Your task to perform on an android device: add a label to a message in the gmail app Image 0: 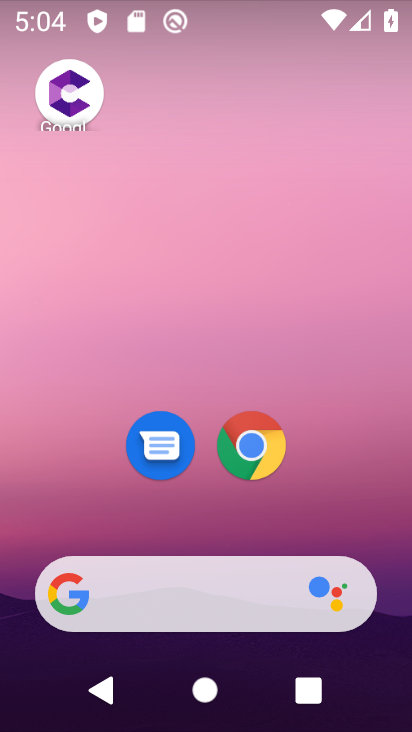
Step 0: drag from (378, 693) to (234, 113)
Your task to perform on an android device: add a label to a message in the gmail app Image 1: 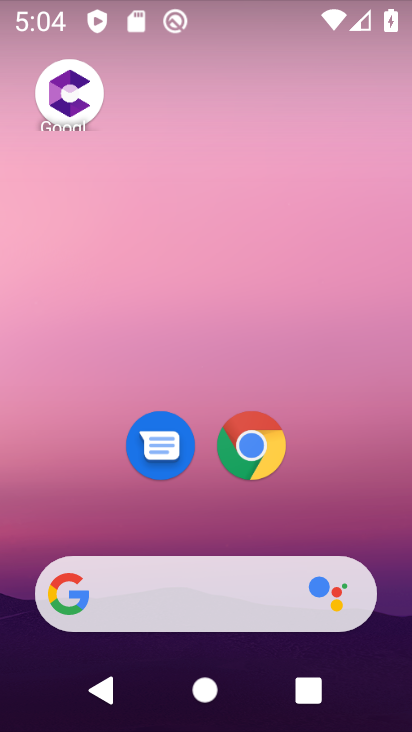
Step 1: click (304, 179)
Your task to perform on an android device: add a label to a message in the gmail app Image 2: 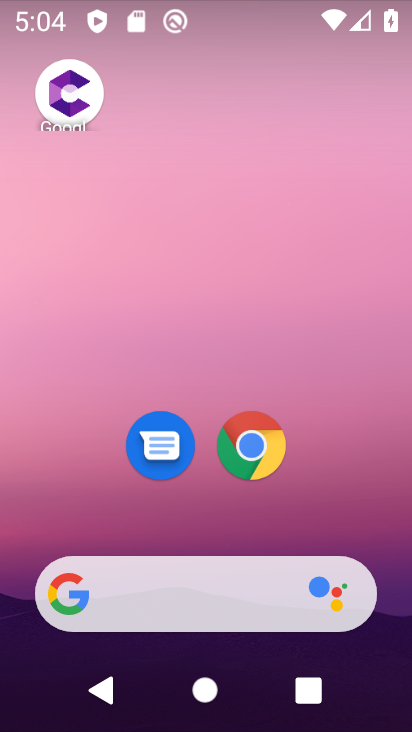
Step 2: drag from (313, 646) to (162, 4)
Your task to perform on an android device: add a label to a message in the gmail app Image 3: 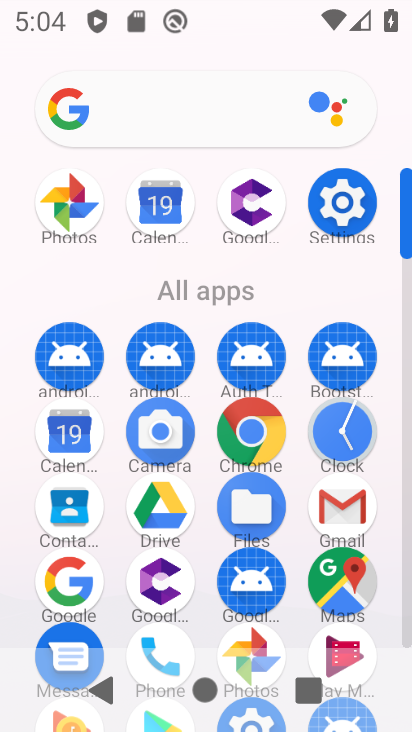
Step 3: click (321, 495)
Your task to perform on an android device: add a label to a message in the gmail app Image 4: 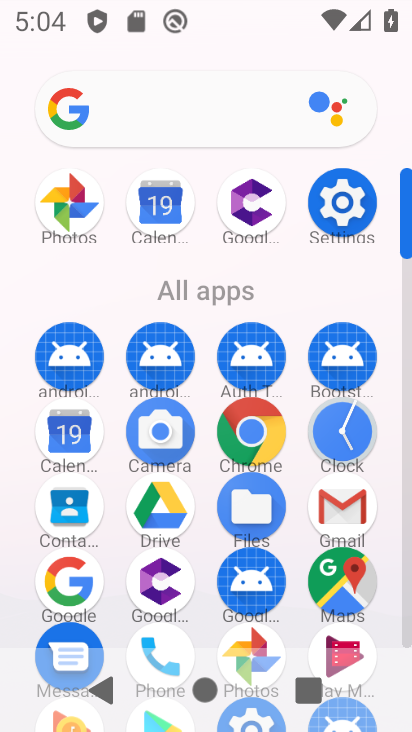
Step 4: click (321, 495)
Your task to perform on an android device: add a label to a message in the gmail app Image 5: 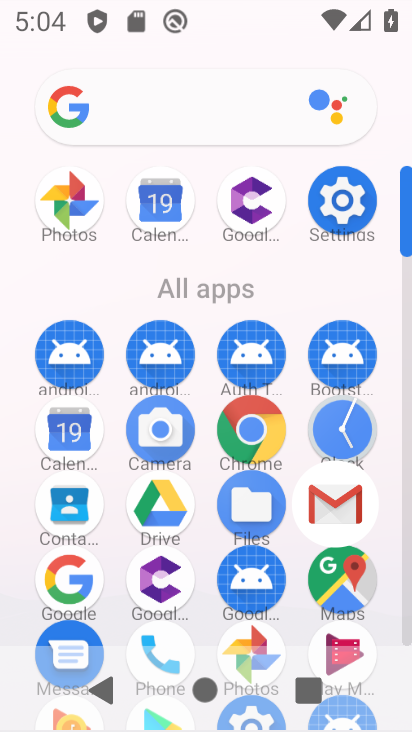
Step 5: click (321, 495)
Your task to perform on an android device: add a label to a message in the gmail app Image 6: 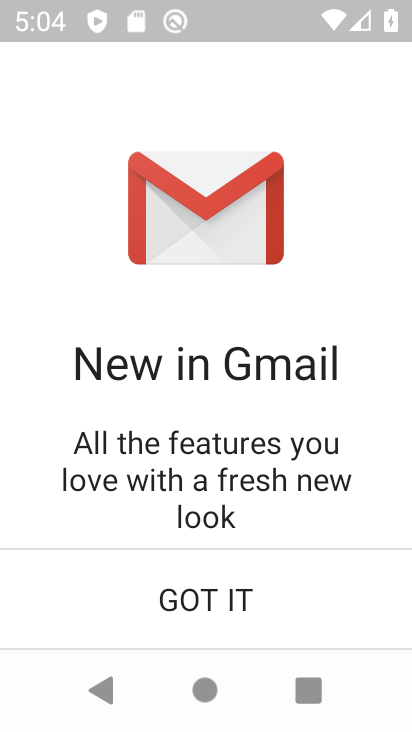
Step 6: click (179, 599)
Your task to perform on an android device: add a label to a message in the gmail app Image 7: 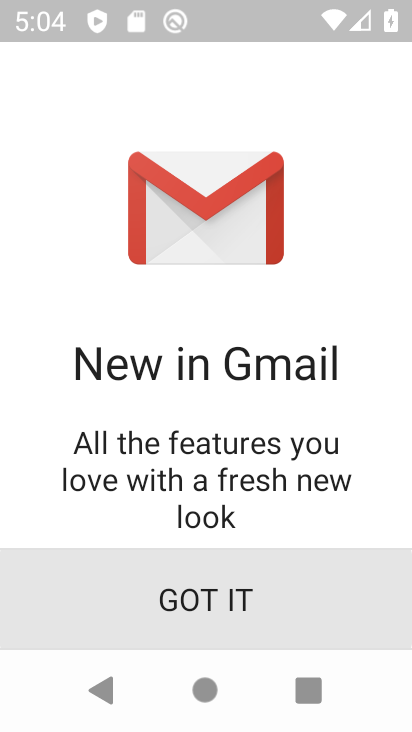
Step 7: click (195, 588)
Your task to perform on an android device: add a label to a message in the gmail app Image 8: 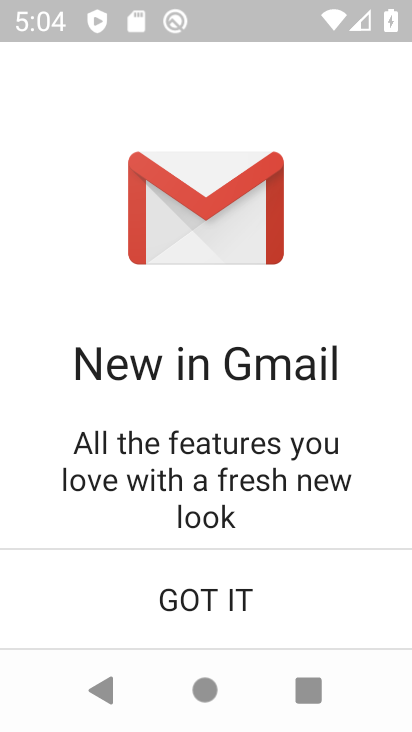
Step 8: click (195, 588)
Your task to perform on an android device: add a label to a message in the gmail app Image 9: 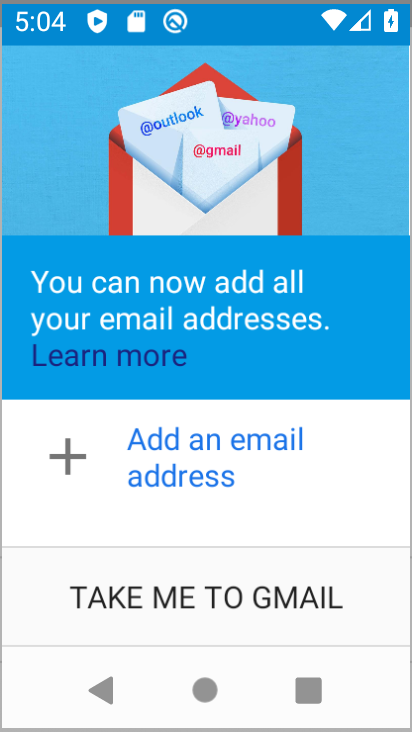
Step 9: click (195, 589)
Your task to perform on an android device: add a label to a message in the gmail app Image 10: 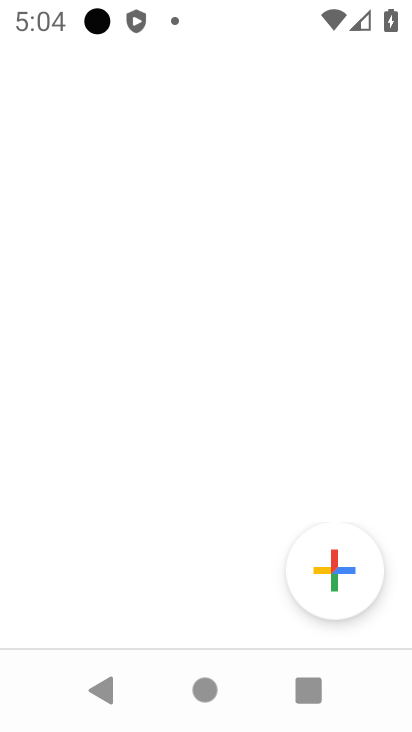
Step 10: click (190, 599)
Your task to perform on an android device: add a label to a message in the gmail app Image 11: 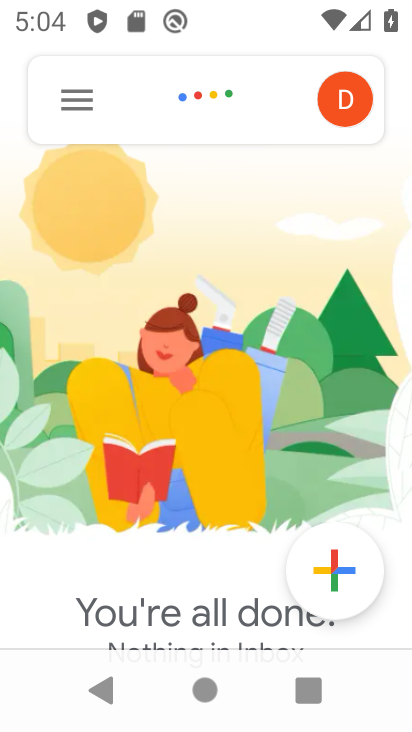
Step 11: click (76, 100)
Your task to perform on an android device: add a label to a message in the gmail app Image 12: 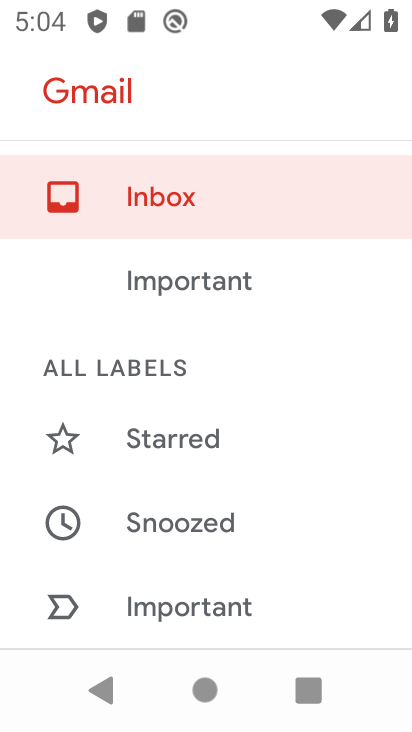
Step 12: drag from (176, 532) to (240, 199)
Your task to perform on an android device: add a label to a message in the gmail app Image 13: 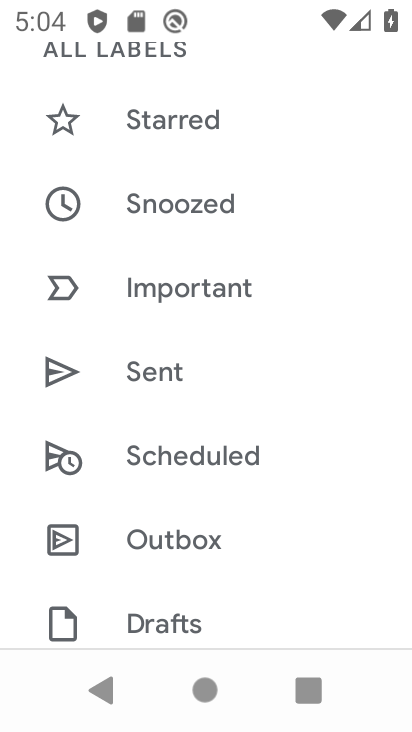
Step 13: drag from (202, 464) to (216, 154)
Your task to perform on an android device: add a label to a message in the gmail app Image 14: 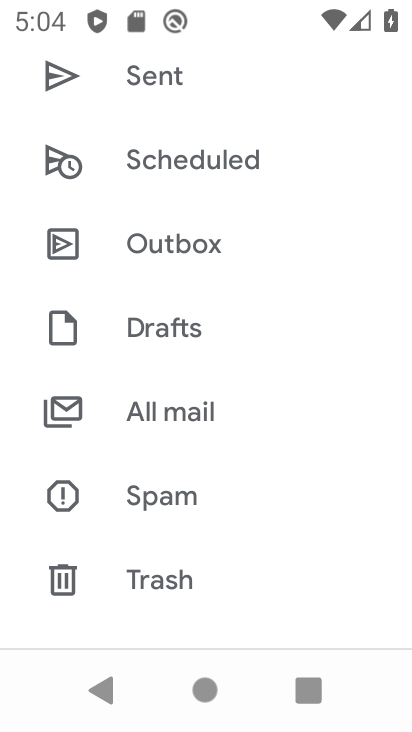
Step 14: click (162, 407)
Your task to perform on an android device: add a label to a message in the gmail app Image 15: 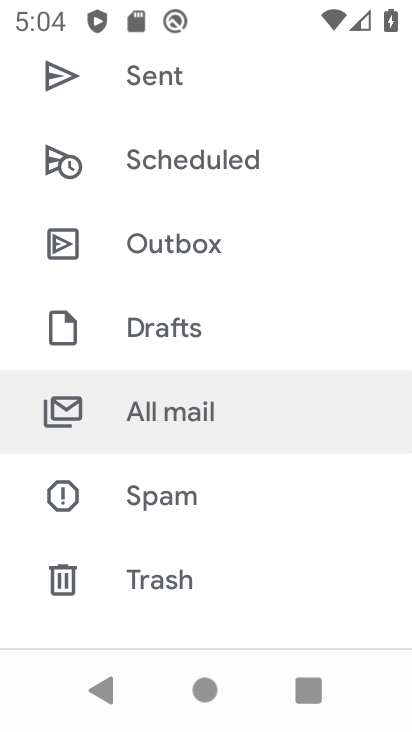
Step 15: click (159, 407)
Your task to perform on an android device: add a label to a message in the gmail app Image 16: 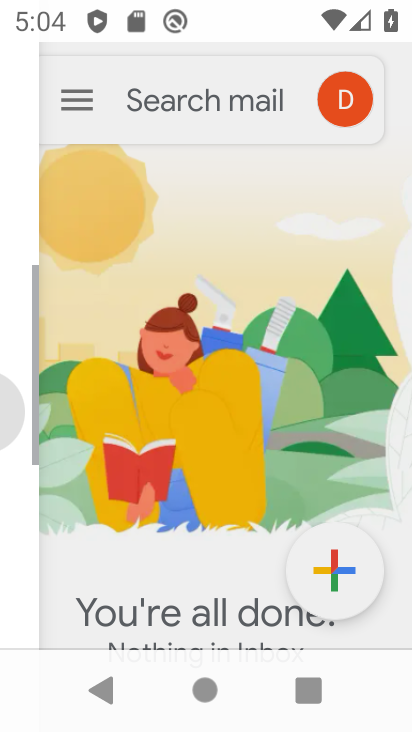
Step 16: click (159, 407)
Your task to perform on an android device: add a label to a message in the gmail app Image 17: 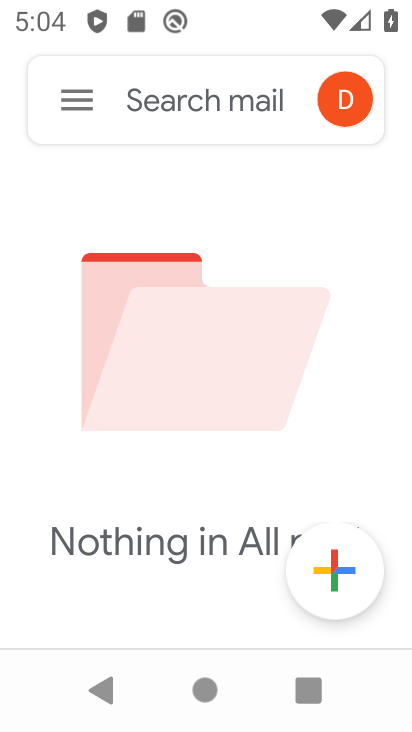
Step 17: task complete